Your task to perform on an android device: change text size in settings app Image 0: 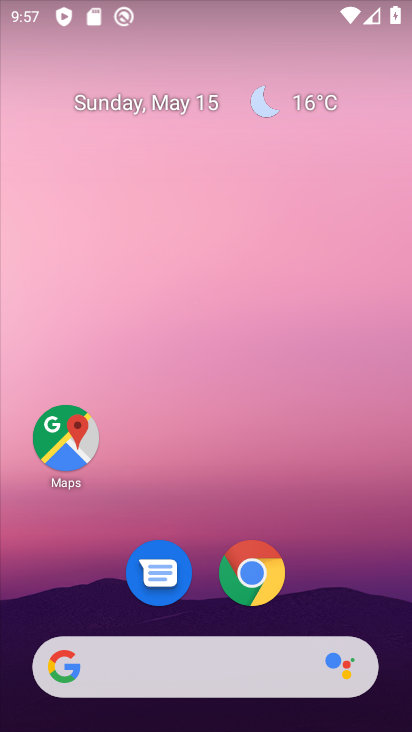
Step 0: drag from (320, 605) to (306, 17)
Your task to perform on an android device: change text size in settings app Image 1: 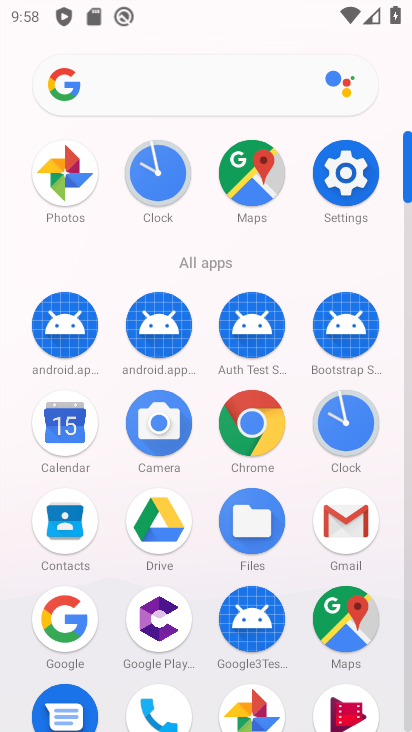
Step 1: click (337, 192)
Your task to perform on an android device: change text size in settings app Image 2: 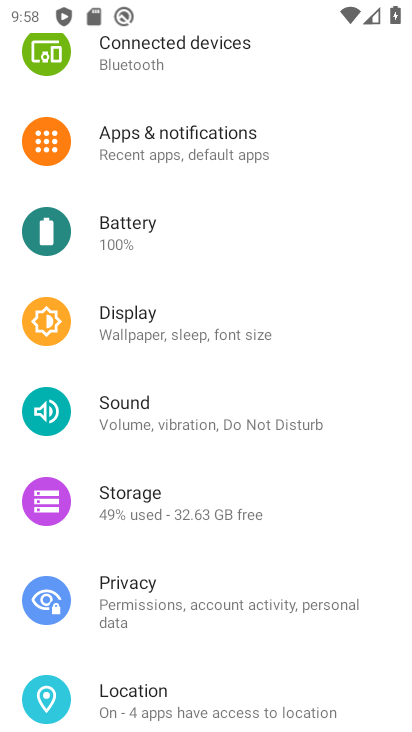
Step 2: drag from (237, 535) to (168, 37)
Your task to perform on an android device: change text size in settings app Image 3: 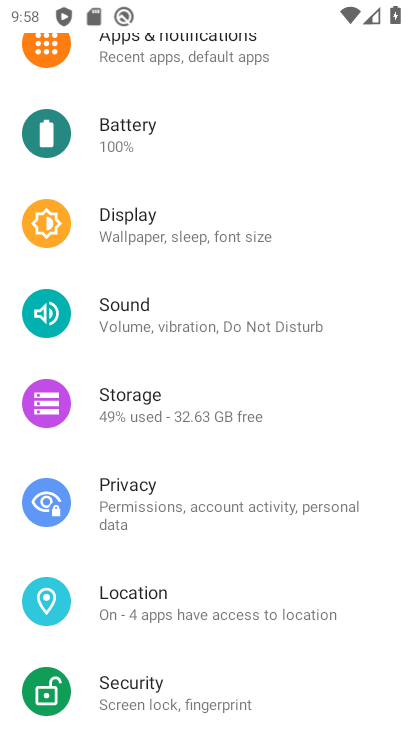
Step 3: drag from (208, 168) to (189, 677)
Your task to perform on an android device: change text size in settings app Image 4: 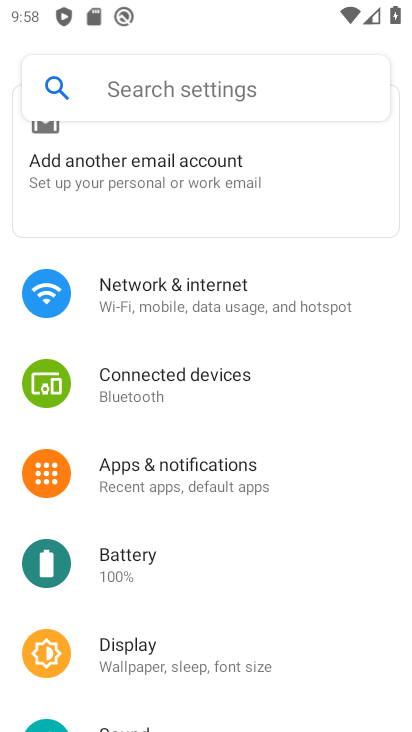
Step 4: drag from (217, 416) to (229, 686)
Your task to perform on an android device: change text size in settings app Image 5: 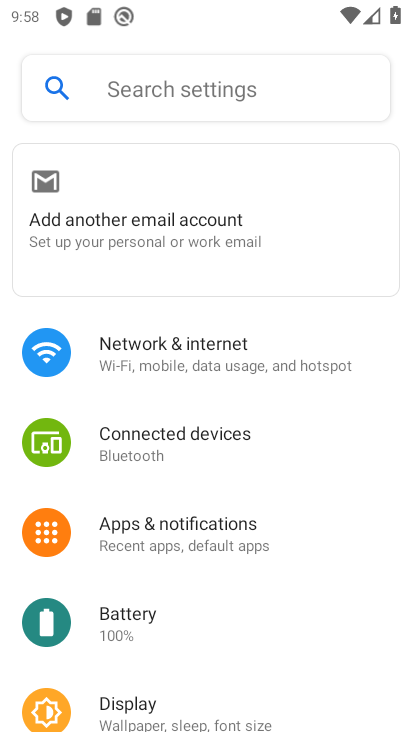
Step 5: drag from (165, 656) to (162, 449)
Your task to perform on an android device: change text size in settings app Image 6: 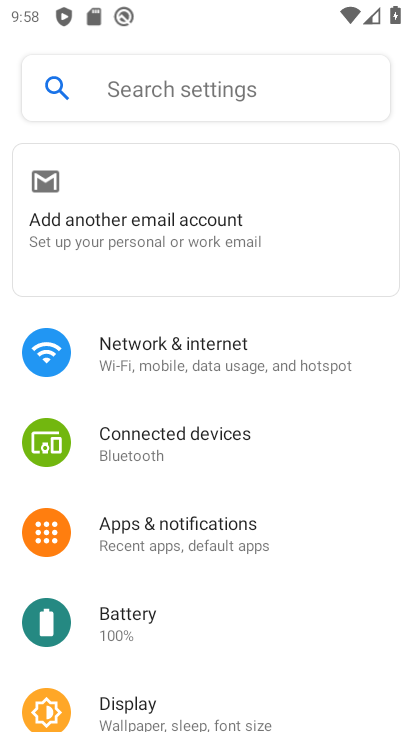
Step 6: click (144, 716)
Your task to perform on an android device: change text size in settings app Image 7: 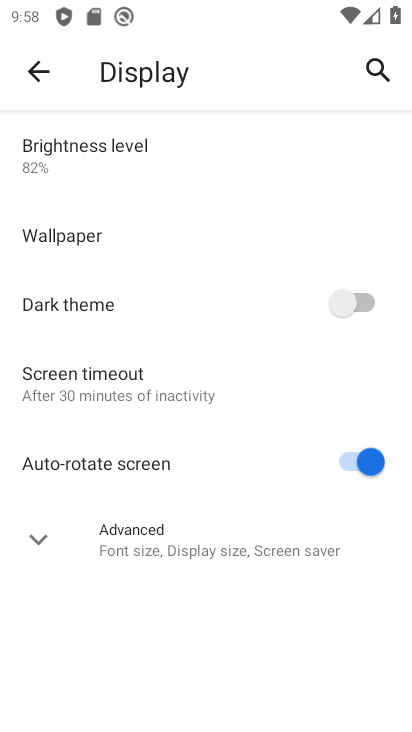
Step 7: click (133, 549)
Your task to perform on an android device: change text size in settings app Image 8: 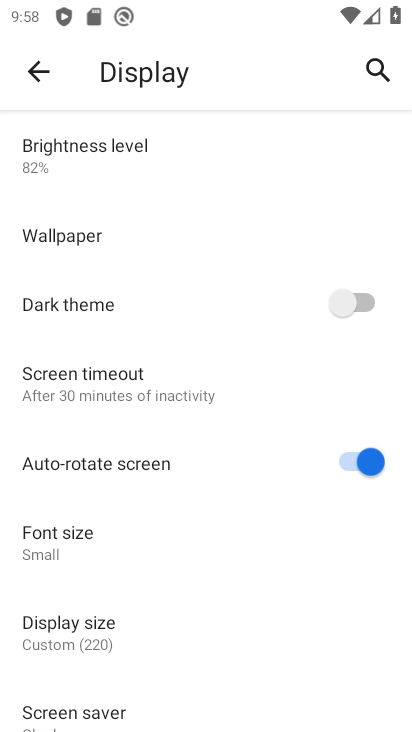
Step 8: click (72, 555)
Your task to perform on an android device: change text size in settings app Image 9: 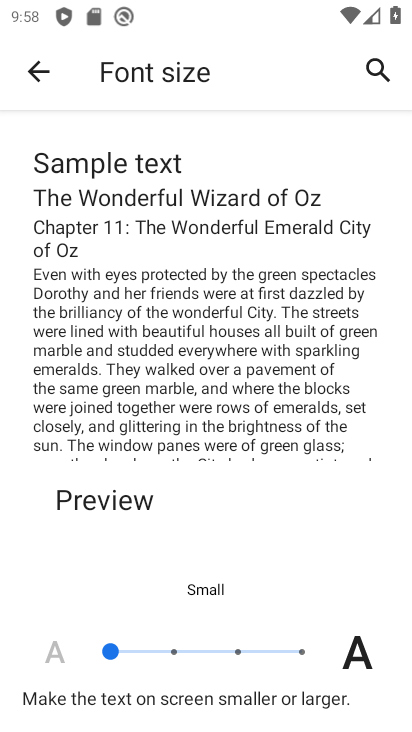
Step 9: click (170, 658)
Your task to perform on an android device: change text size in settings app Image 10: 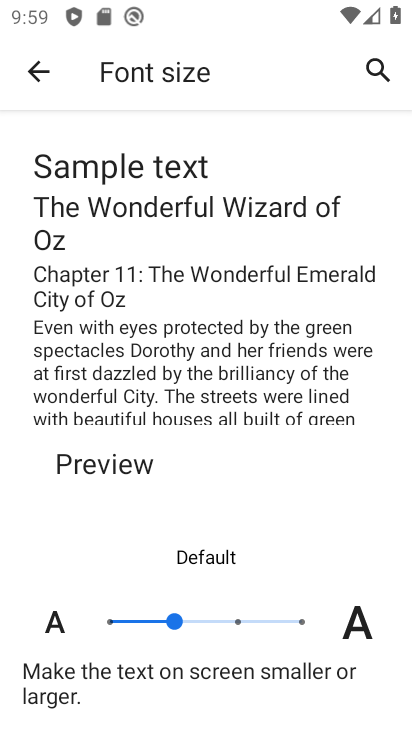
Step 10: task complete